Your task to perform on an android device: Open calendar and show me the third week of next month Image 0: 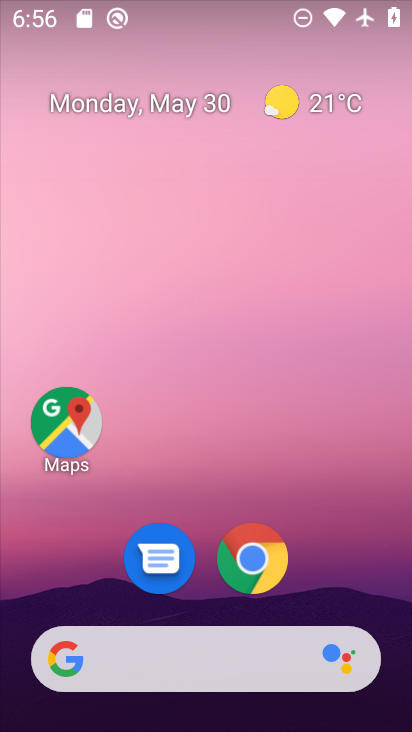
Step 0: drag from (355, 524) to (186, 14)
Your task to perform on an android device: Open calendar and show me the third week of next month Image 1: 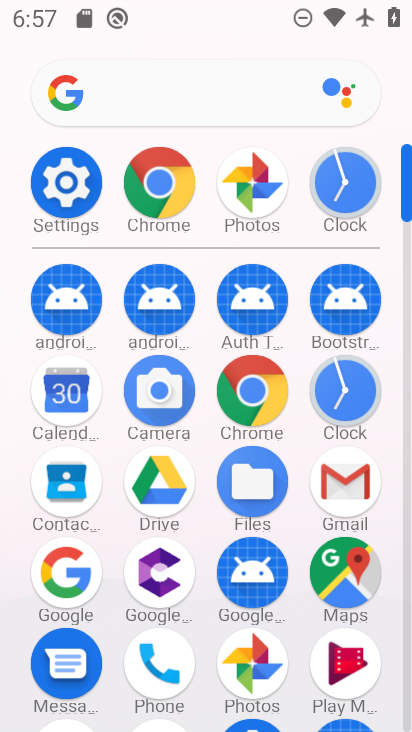
Step 1: click (63, 393)
Your task to perform on an android device: Open calendar and show me the third week of next month Image 2: 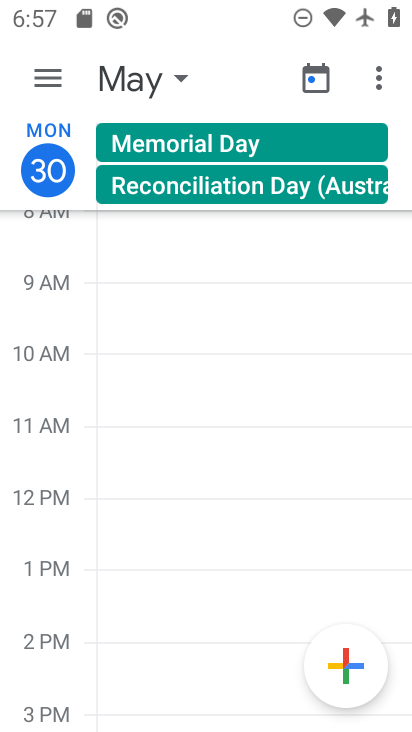
Step 2: click (51, 69)
Your task to perform on an android device: Open calendar and show me the third week of next month Image 3: 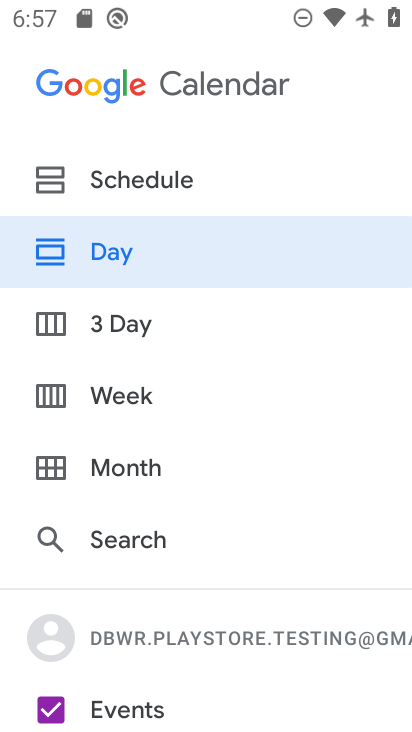
Step 3: click (119, 391)
Your task to perform on an android device: Open calendar and show me the third week of next month Image 4: 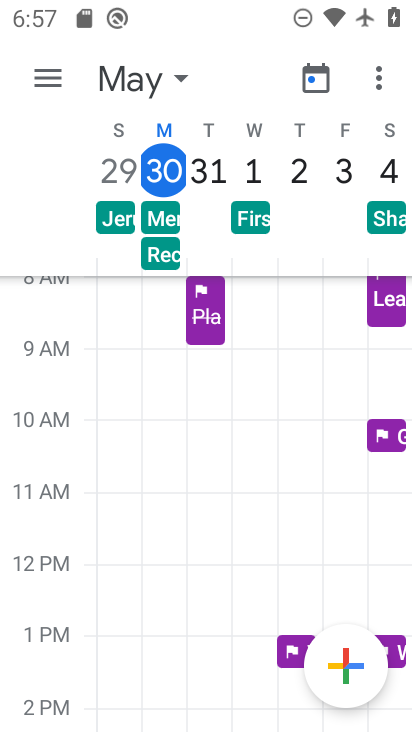
Step 4: click (182, 71)
Your task to perform on an android device: Open calendar and show me the third week of next month Image 5: 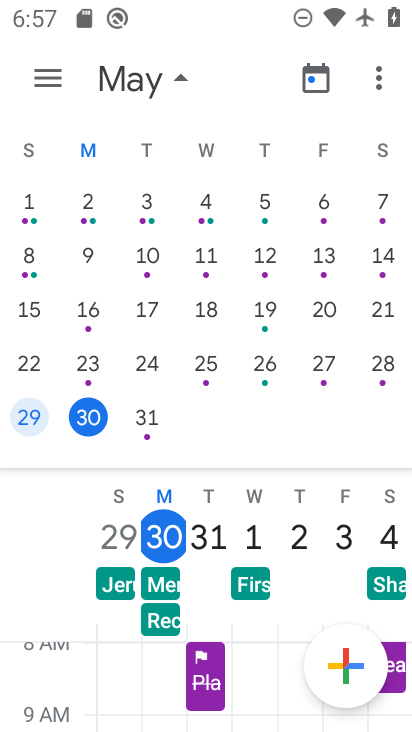
Step 5: drag from (355, 290) to (68, 208)
Your task to perform on an android device: Open calendar and show me the third week of next month Image 6: 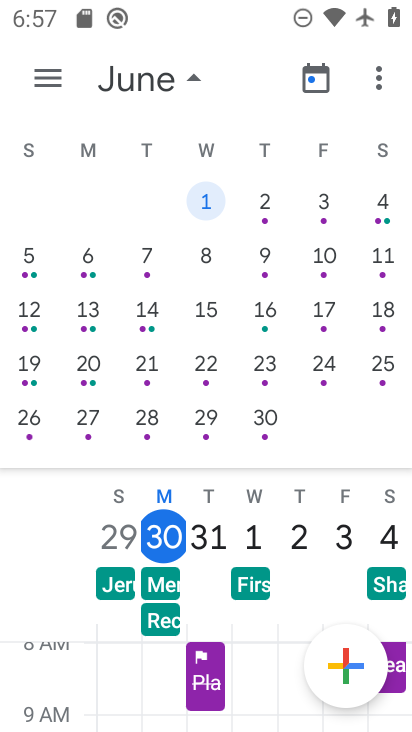
Step 6: click (210, 299)
Your task to perform on an android device: Open calendar and show me the third week of next month Image 7: 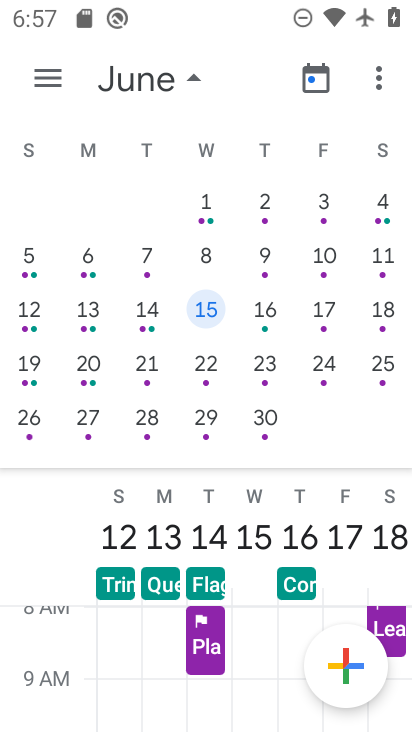
Step 7: task complete